Your task to perform on an android device: Go to eBay Image 0: 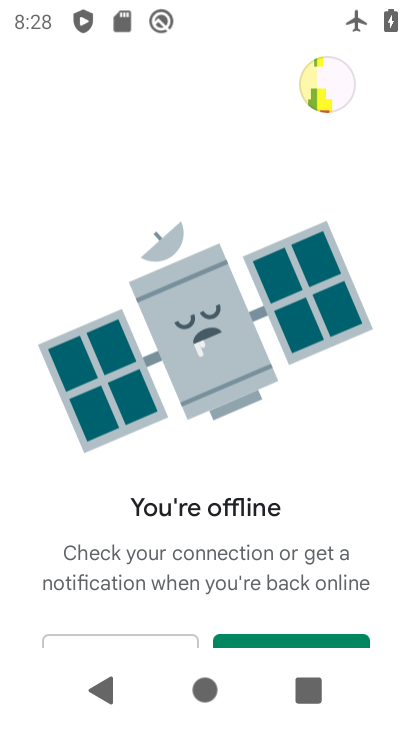
Step 0: press home button
Your task to perform on an android device: Go to eBay Image 1: 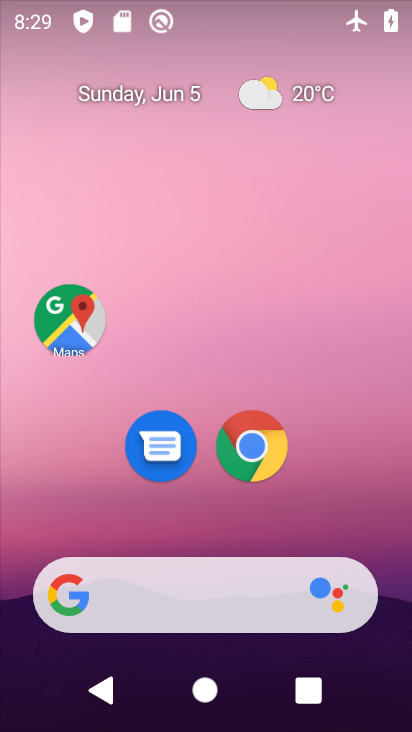
Step 1: drag from (208, 527) to (224, 174)
Your task to perform on an android device: Go to eBay Image 2: 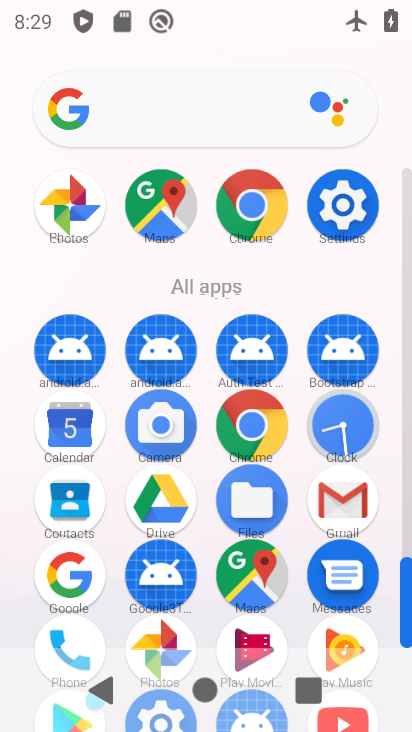
Step 2: click (235, 219)
Your task to perform on an android device: Go to eBay Image 3: 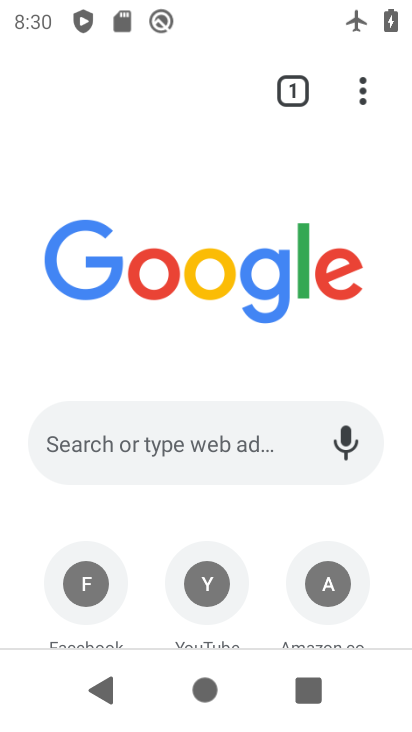
Step 3: drag from (192, 523) to (238, 189)
Your task to perform on an android device: Go to eBay Image 4: 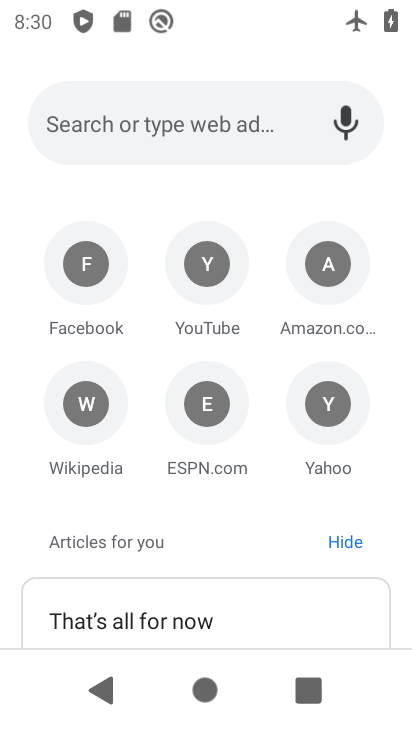
Step 4: click (228, 133)
Your task to perform on an android device: Go to eBay Image 5: 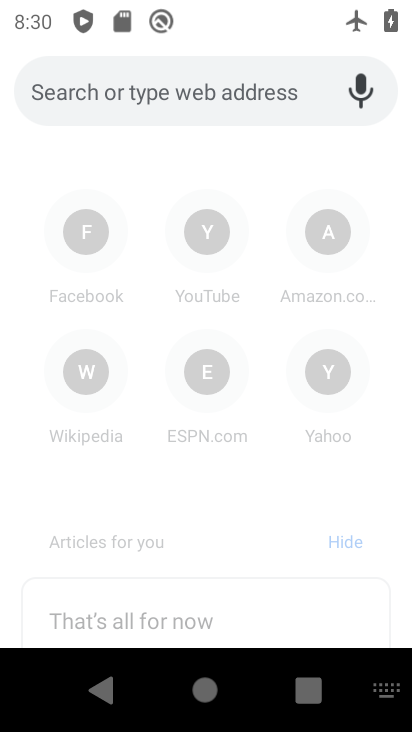
Step 5: type "eBay"
Your task to perform on an android device: Go to eBay Image 6: 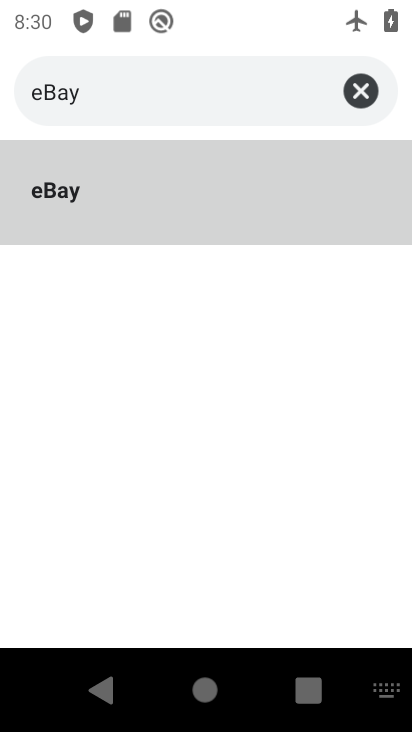
Step 6: task complete